Your task to perform on an android device: choose inbox layout in the gmail app Image 0: 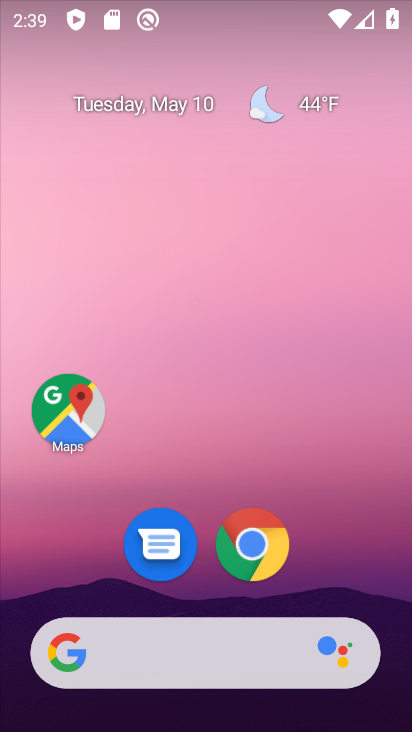
Step 0: drag from (172, 614) to (284, 45)
Your task to perform on an android device: choose inbox layout in the gmail app Image 1: 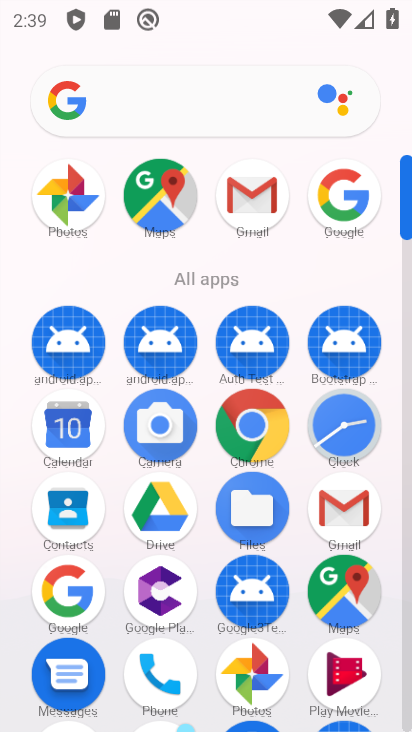
Step 1: click (336, 511)
Your task to perform on an android device: choose inbox layout in the gmail app Image 2: 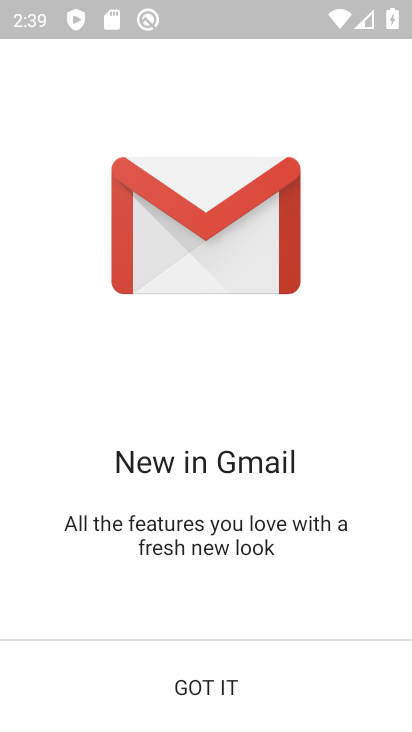
Step 2: click (185, 686)
Your task to perform on an android device: choose inbox layout in the gmail app Image 3: 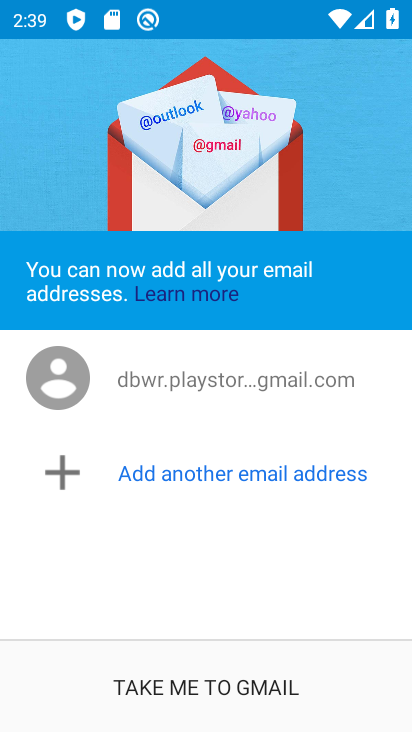
Step 3: click (192, 691)
Your task to perform on an android device: choose inbox layout in the gmail app Image 4: 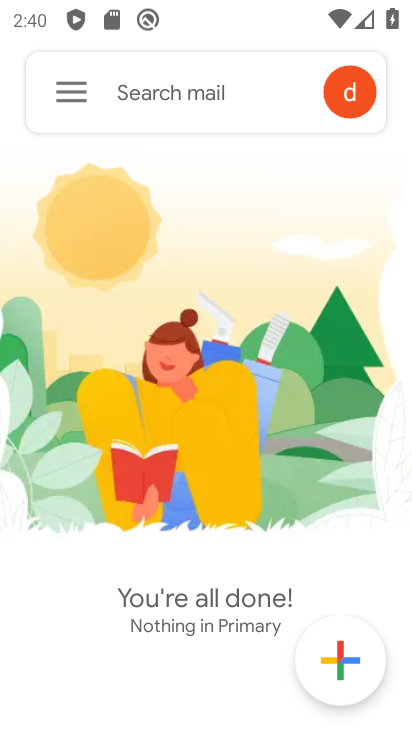
Step 4: click (77, 106)
Your task to perform on an android device: choose inbox layout in the gmail app Image 5: 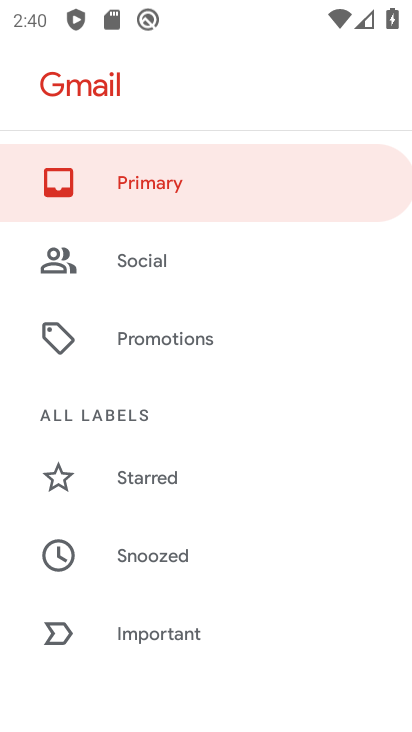
Step 5: drag from (153, 626) to (258, 253)
Your task to perform on an android device: choose inbox layout in the gmail app Image 6: 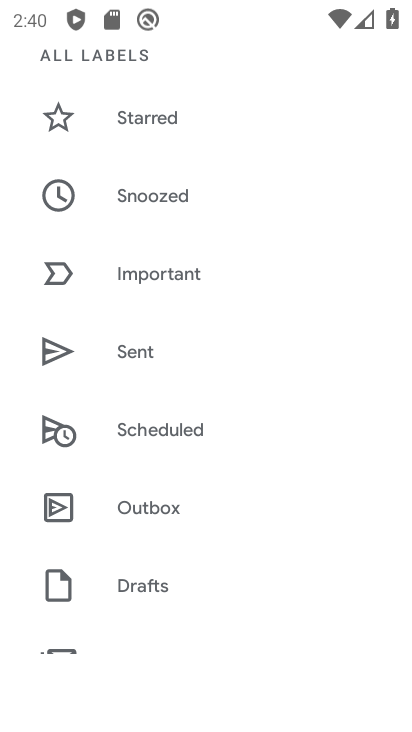
Step 6: drag from (147, 626) to (245, 283)
Your task to perform on an android device: choose inbox layout in the gmail app Image 7: 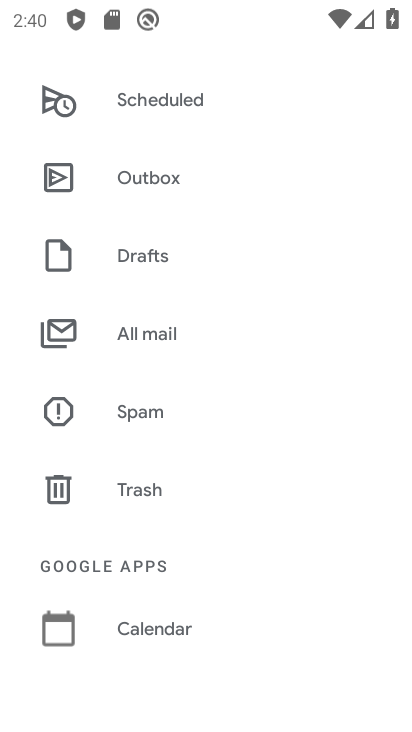
Step 7: drag from (138, 609) to (238, 227)
Your task to perform on an android device: choose inbox layout in the gmail app Image 8: 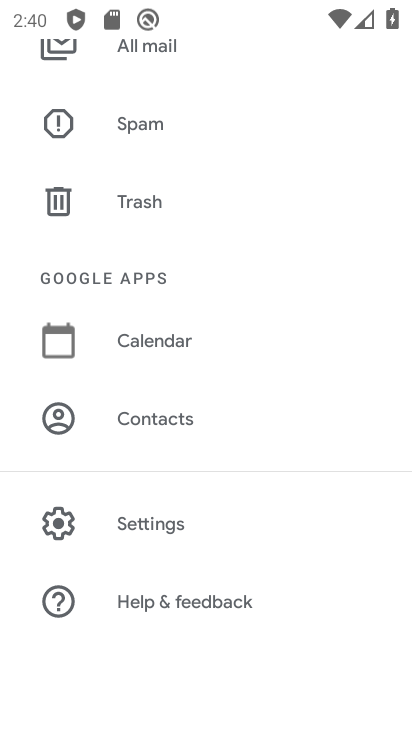
Step 8: click (191, 529)
Your task to perform on an android device: choose inbox layout in the gmail app Image 9: 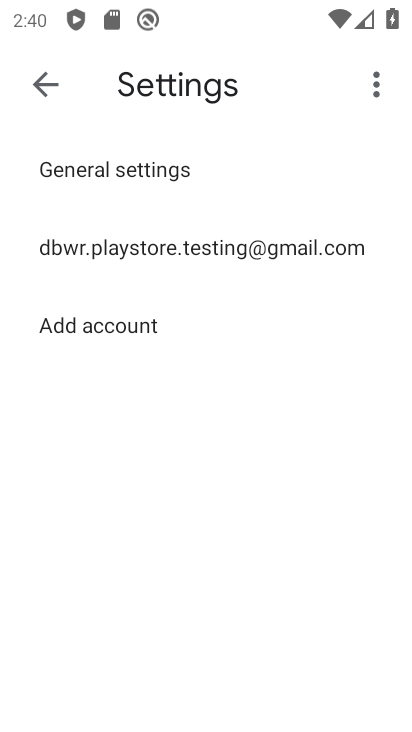
Step 9: click (228, 243)
Your task to perform on an android device: choose inbox layout in the gmail app Image 10: 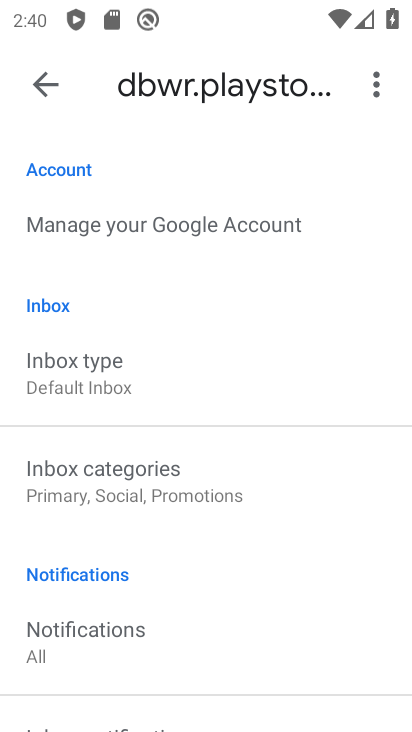
Step 10: click (133, 392)
Your task to perform on an android device: choose inbox layout in the gmail app Image 11: 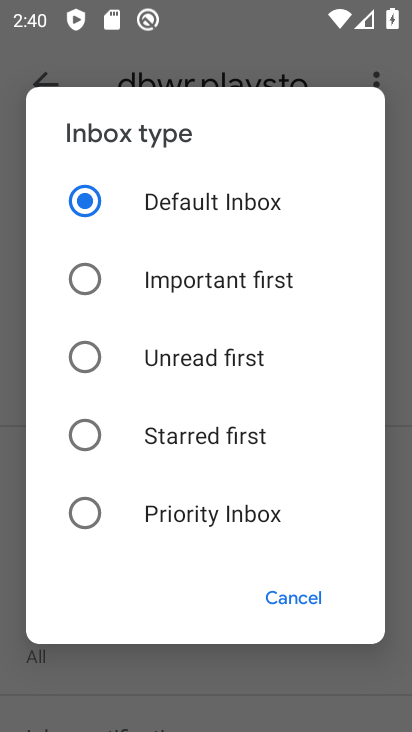
Step 11: click (90, 365)
Your task to perform on an android device: choose inbox layout in the gmail app Image 12: 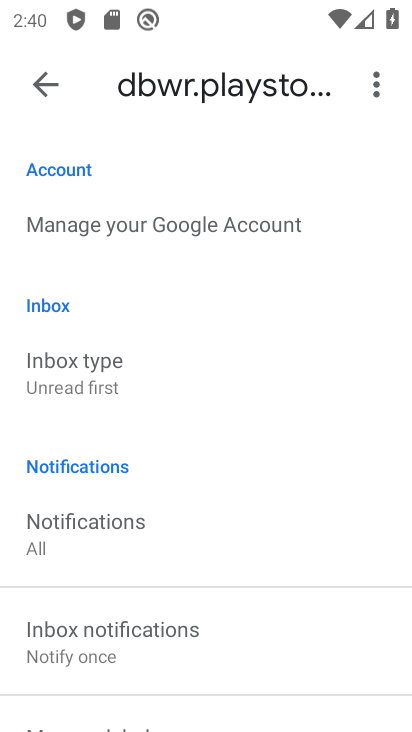
Step 12: task complete